Your task to perform on an android device: turn on javascript in the chrome app Image 0: 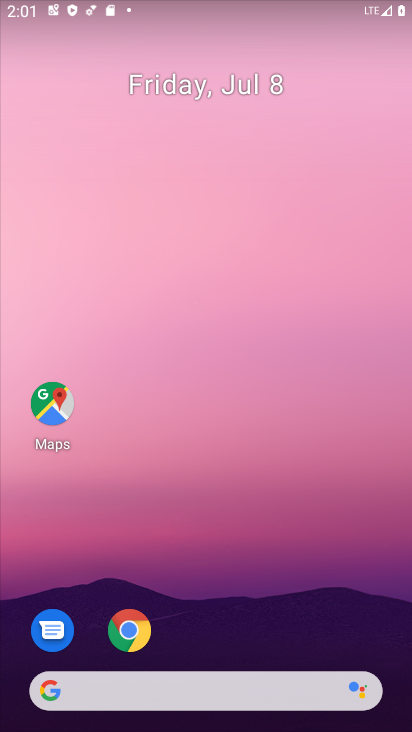
Step 0: drag from (215, 653) to (270, 18)
Your task to perform on an android device: turn on javascript in the chrome app Image 1: 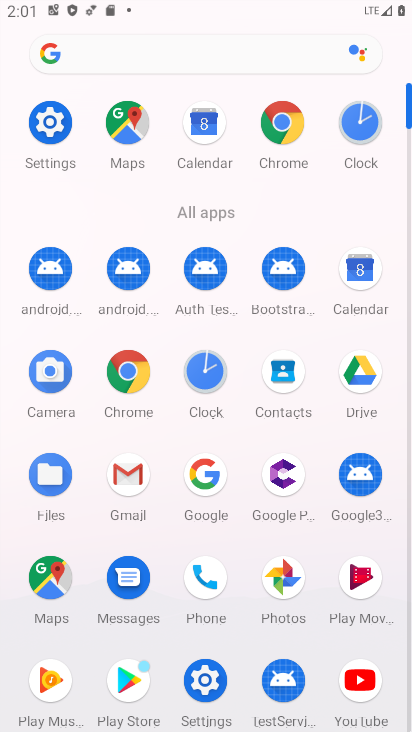
Step 1: click (280, 116)
Your task to perform on an android device: turn on javascript in the chrome app Image 2: 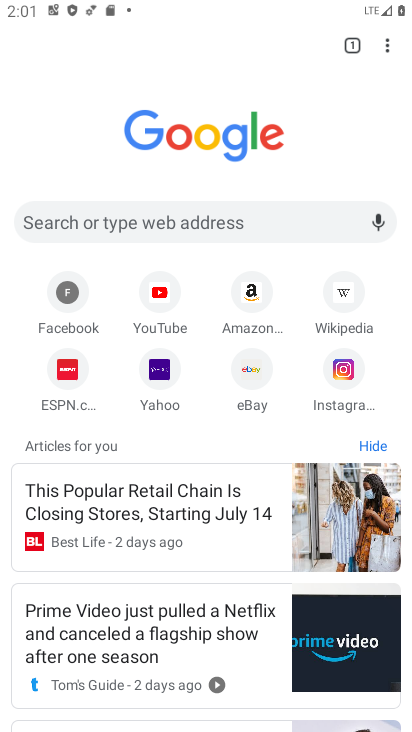
Step 2: click (385, 40)
Your task to perform on an android device: turn on javascript in the chrome app Image 3: 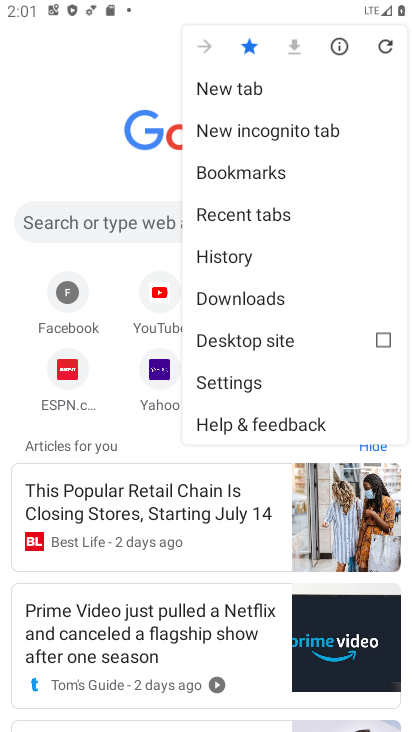
Step 3: click (271, 377)
Your task to perform on an android device: turn on javascript in the chrome app Image 4: 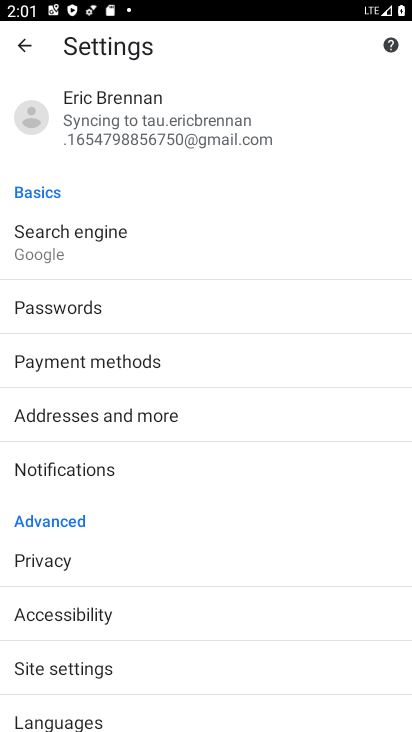
Step 4: click (135, 663)
Your task to perform on an android device: turn on javascript in the chrome app Image 5: 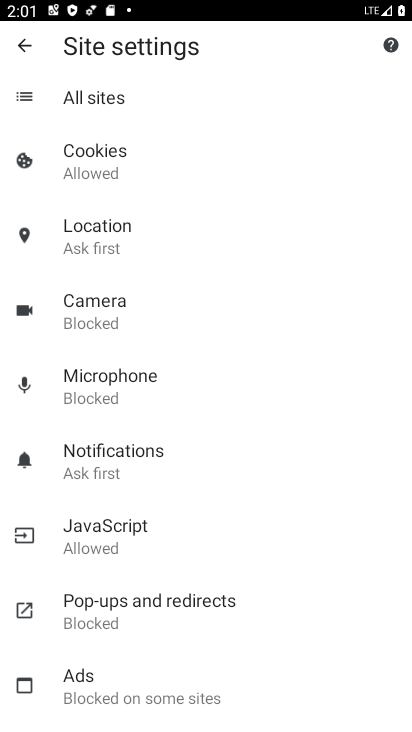
Step 5: click (165, 536)
Your task to perform on an android device: turn on javascript in the chrome app Image 6: 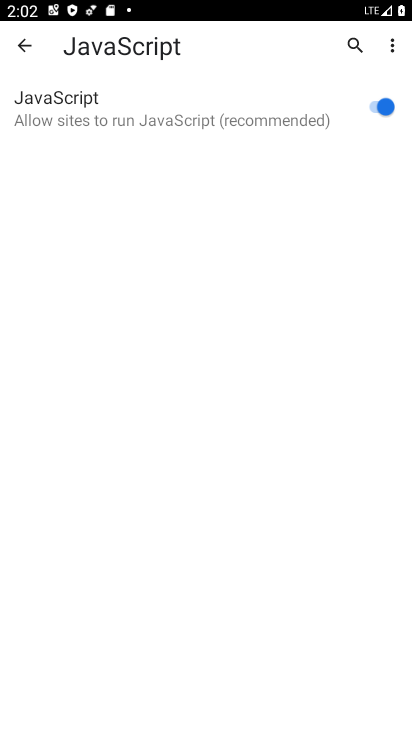
Step 6: task complete